Your task to perform on an android device: Go to Google maps Image 0: 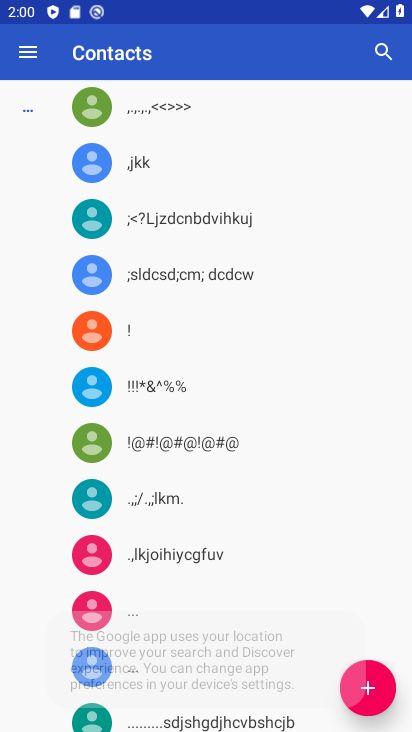
Step 0: press back button
Your task to perform on an android device: Go to Google maps Image 1: 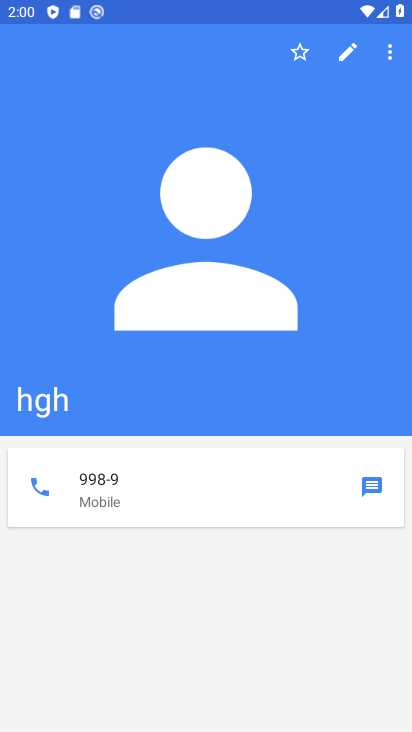
Step 1: press back button
Your task to perform on an android device: Go to Google maps Image 2: 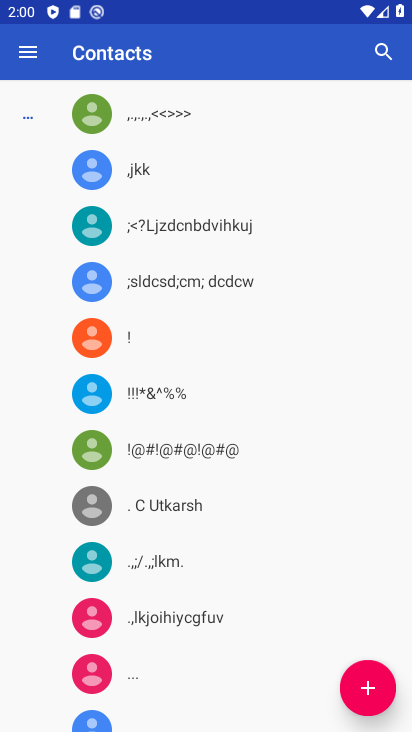
Step 2: press back button
Your task to perform on an android device: Go to Google maps Image 3: 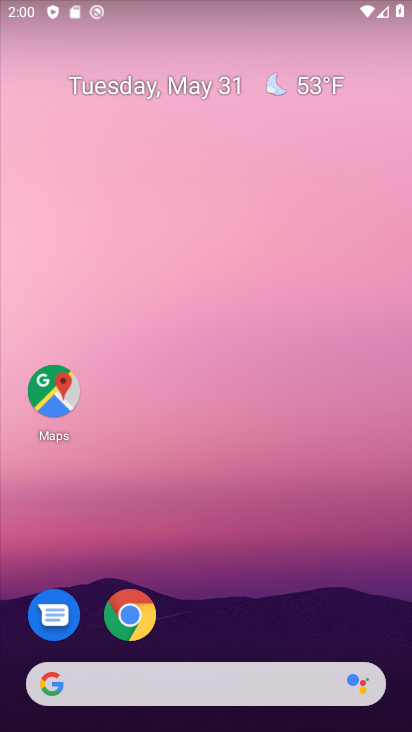
Step 3: click (49, 385)
Your task to perform on an android device: Go to Google maps Image 4: 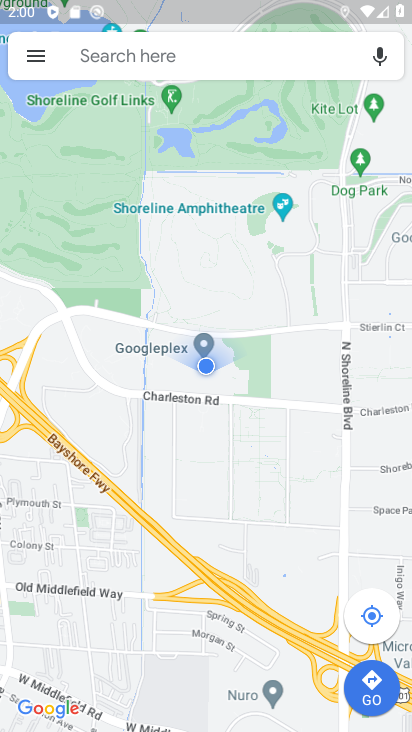
Step 4: task complete